Your task to perform on an android device: Go to Google Image 0: 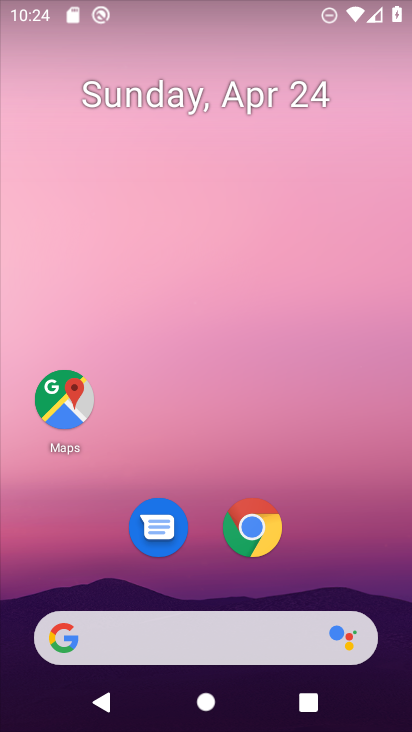
Step 0: drag from (397, 618) to (315, 58)
Your task to perform on an android device: Go to Google Image 1: 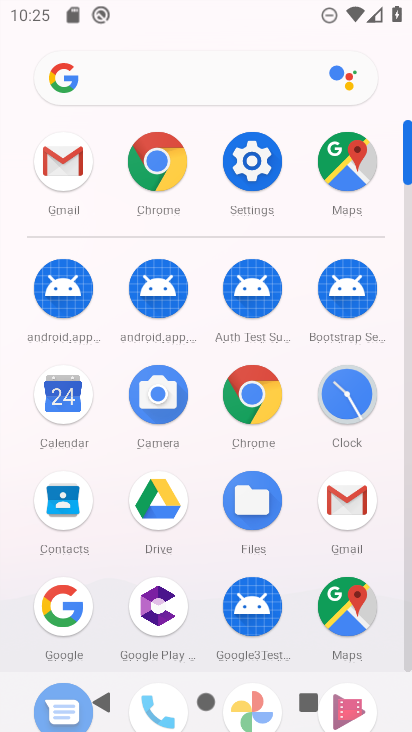
Step 1: click (67, 599)
Your task to perform on an android device: Go to Google Image 2: 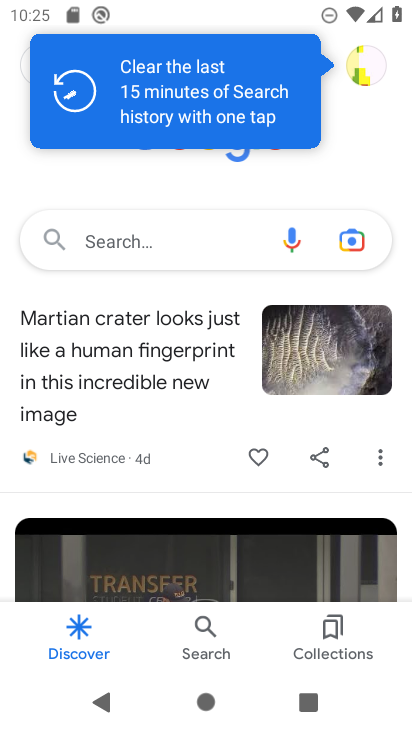
Step 2: task complete